Your task to perform on an android device: Play the last video I watched on Youtube Image 0: 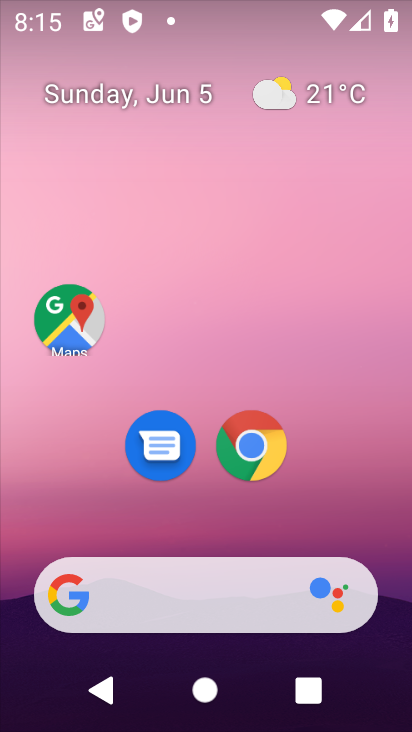
Step 0: press home button
Your task to perform on an android device: Play the last video I watched on Youtube Image 1: 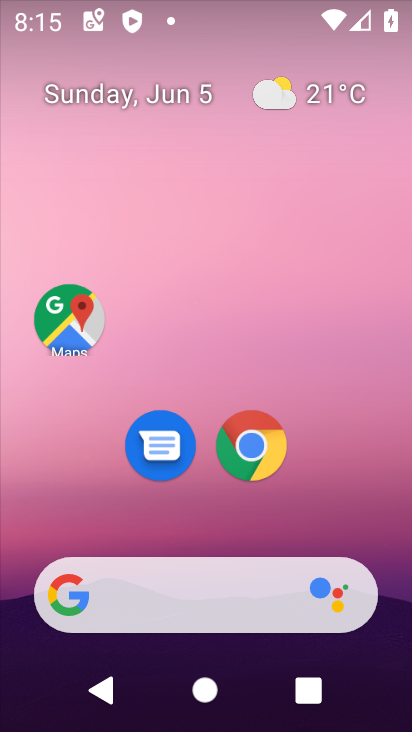
Step 1: drag from (286, 534) to (268, 92)
Your task to perform on an android device: Play the last video I watched on Youtube Image 2: 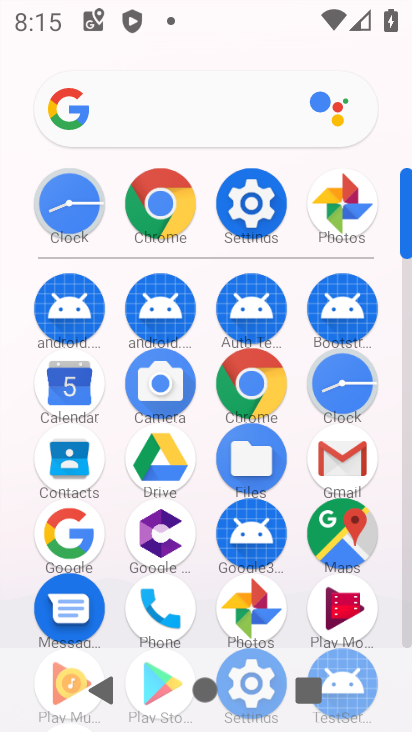
Step 2: drag from (390, 638) to (401, 133)
Your task to perform on an android device: Play the last video I watched on Youtube Image 3: 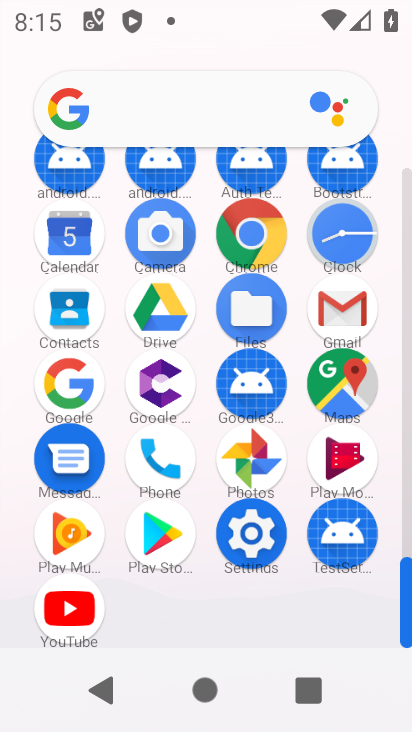
Step 3: click (68, 601)
Your task to perform on an android device: Play the last video I watched on Youtube Image 4: 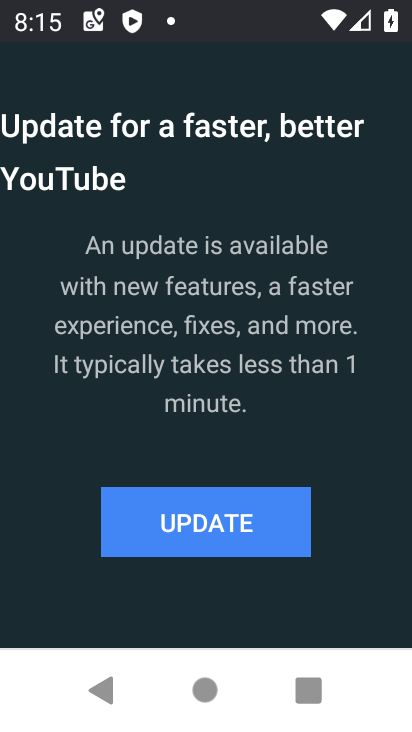
Step 4: click (148, 529)
Your task to perform on an android device: Play the last video I watched on Youtube Image 5: 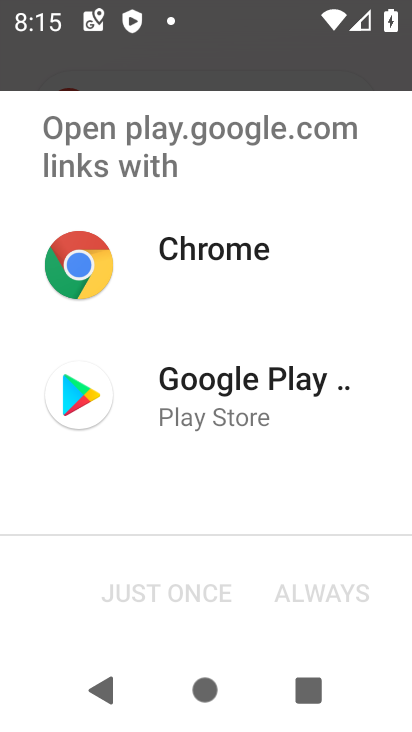
Step 5: click (89, 394)
Your task to perform on an android device: Play the last video I watched on Youtube Image 6: 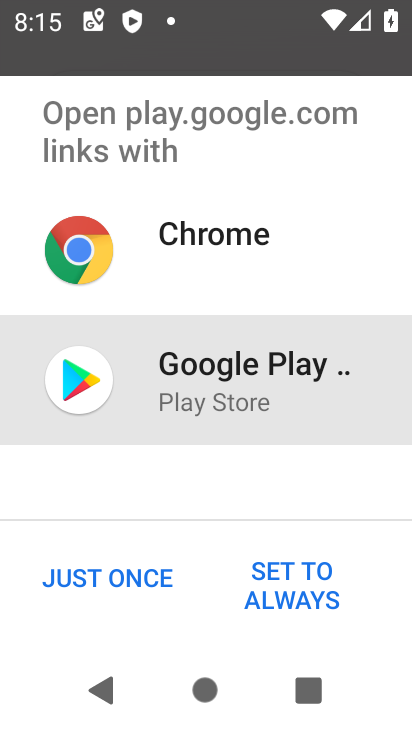
Step 6: click (109, 573)
Your task to perform on an android device: Play the last video I watched on Youtube Image 7: 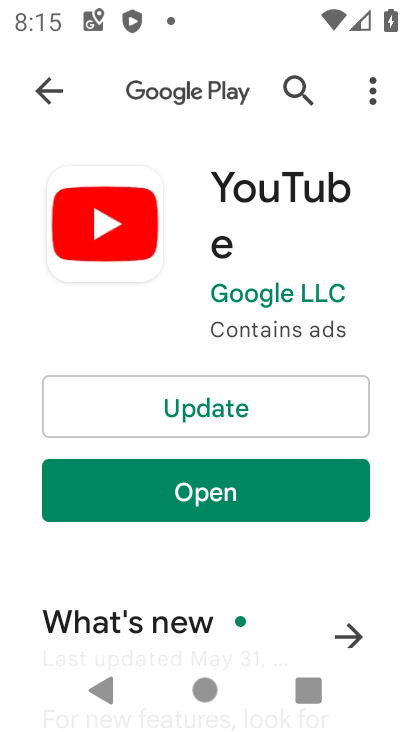
Step 7: click (234, 413)
Your task to perform on an android device: Play the last video I watched on Youtube Image 8: 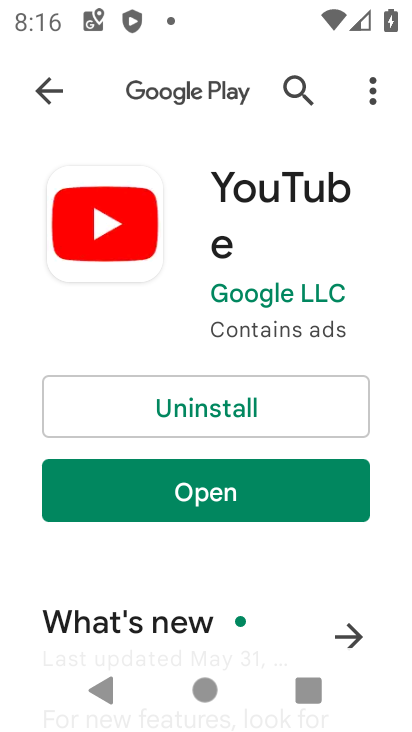
Step 8: click (267, 499)
Your task to perform on an android device: Play the last video I watched on Youtube Image 9: 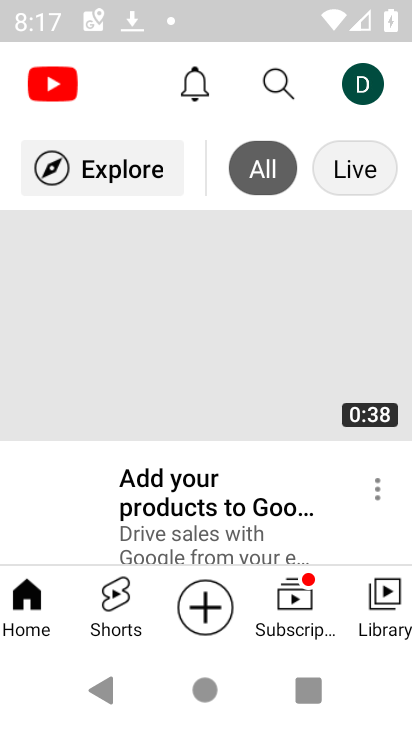
Step 9: click (373, 600)
Your task to perform on an android device: Play the last video I watched on Youtube Image 10: 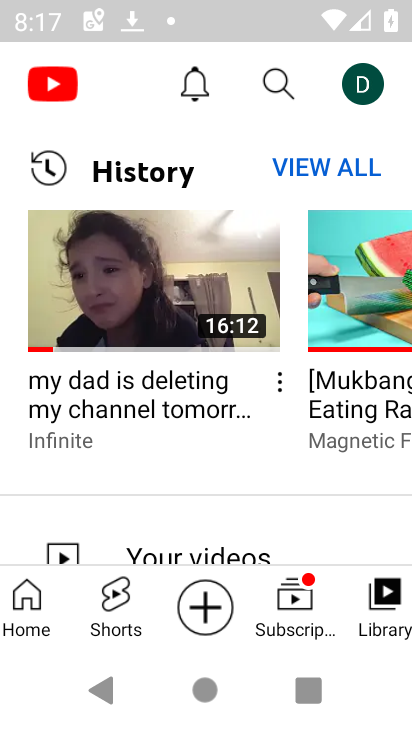
Step 10: click (151, 299)
Your task to perform on an android device: Play the last video I watched on Youtube Image 11: 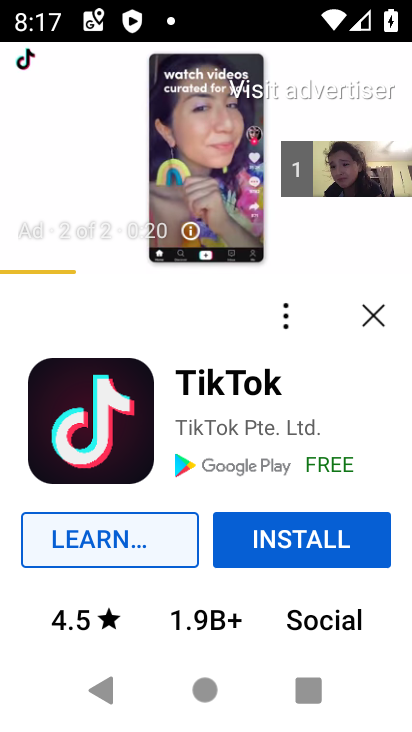
Step 11: click (379, 317)
Your task to perform on an android device: Play the last video I watched on Youtube Image 12: 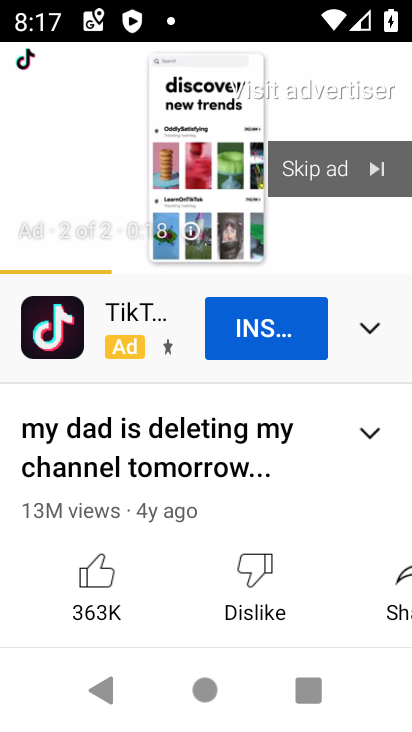
Step 12: click (315, 182)
Your task to perform on an android device: Play the last video I watched on Youtube Image 13: 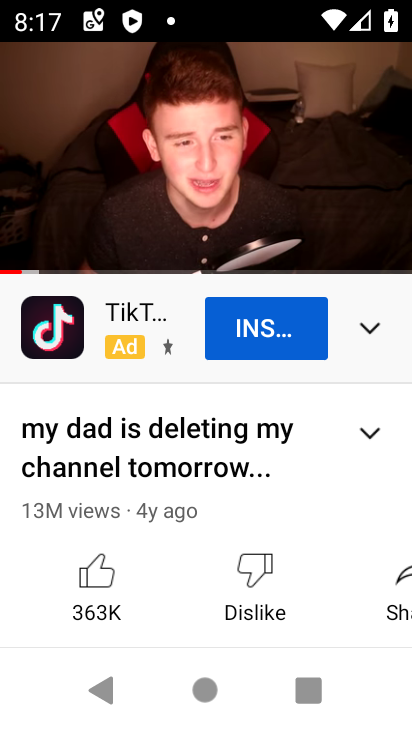
Step 13: task complete